Your task to perform on an android device: Go to ESPN.com Image 0: 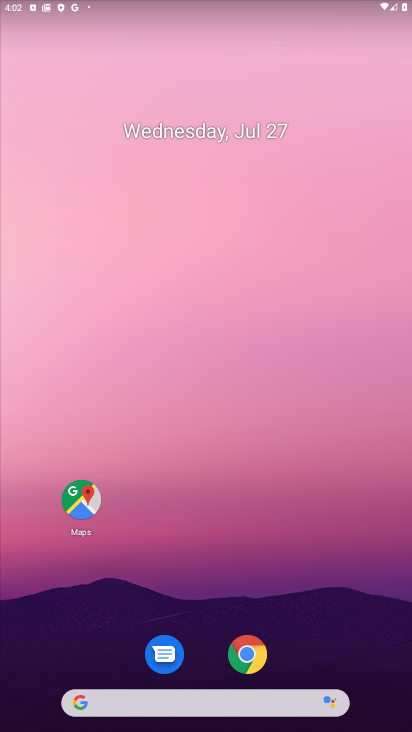
Step 0: click (248, 660)
Your task to perform on an android device: Go to ESPN.com Image 1: 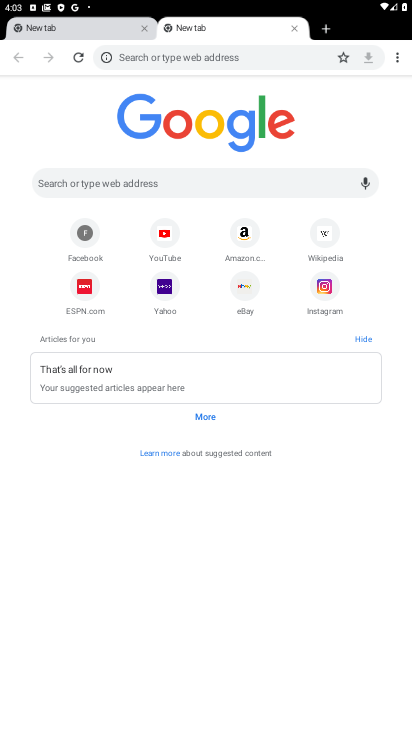
Step 1: click (83, 292)
Your task to perform on an android device: Go to ESPN.com Image 2: 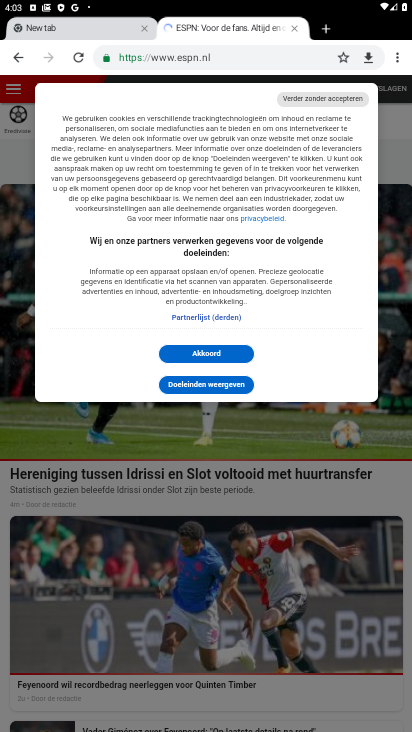
Step 2: task complete